Your task to perform on an android device: delete a single message in the gmail app Image 0: 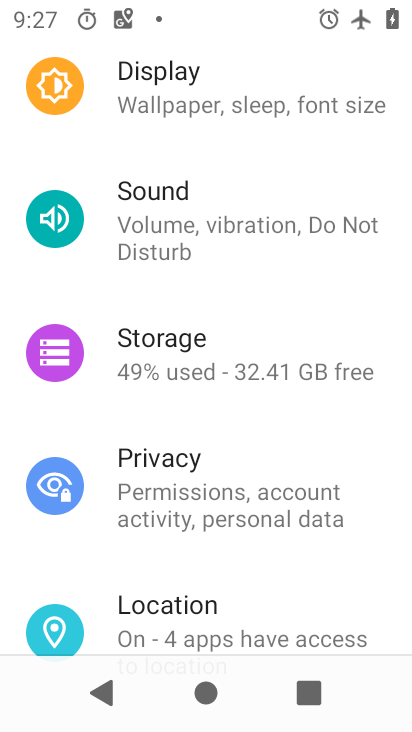
Step 0: press home button
Your task to perform on an android device: delete a single message in the gmail app Image 1: 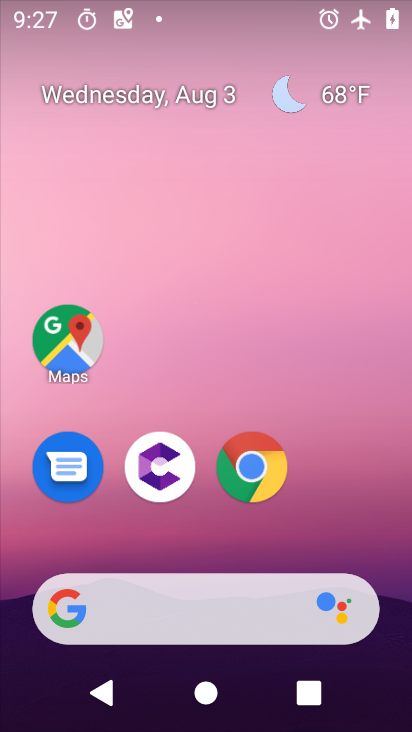
Step 1: drag from (400, 505) to (204, 43)
Your task to perform on an android device: delete a single message in the gmail app Image 2: 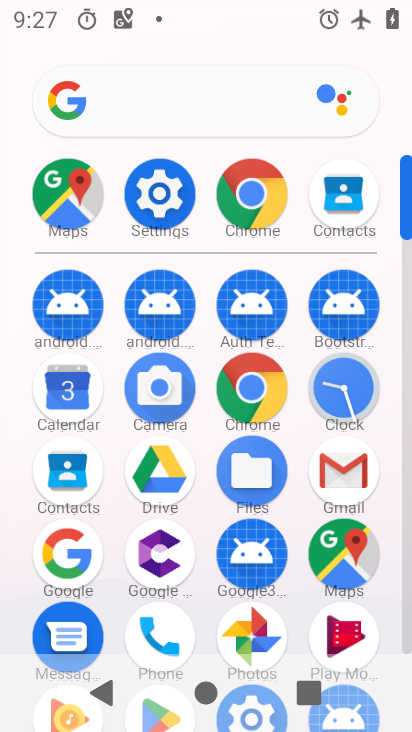
Step 2: click (329, 460)
Your task to perform on an android device: delete a single message in the gmail app Image 3: 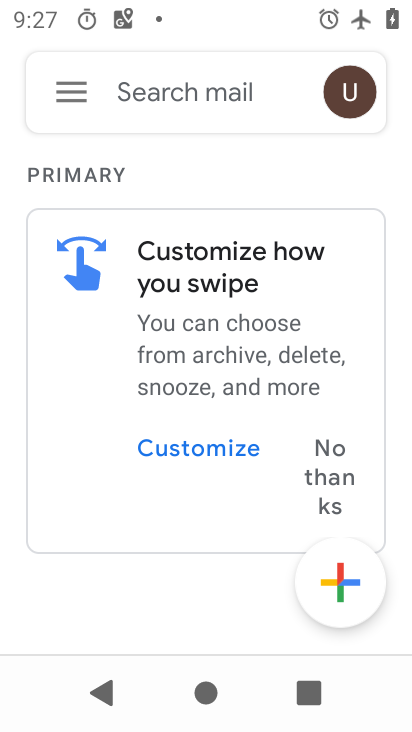
Step 3: click (76, 94)
Your task to perform on an android device: delete a single message in the gmail app Image 4: 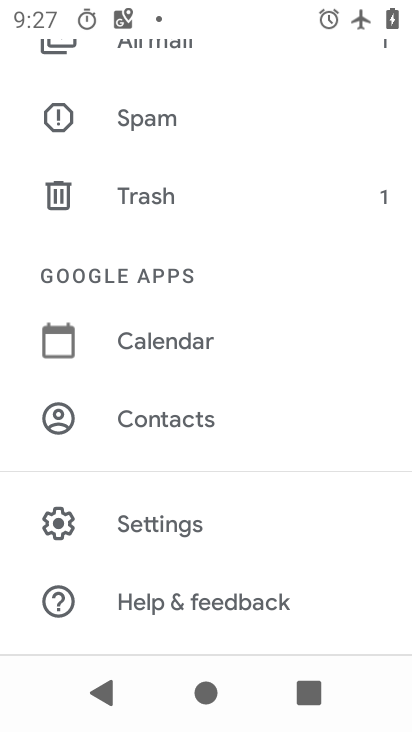
Step 4: click (176, 56)
Your task to perform on an android device: delete a single message in the gmail app Image 5: 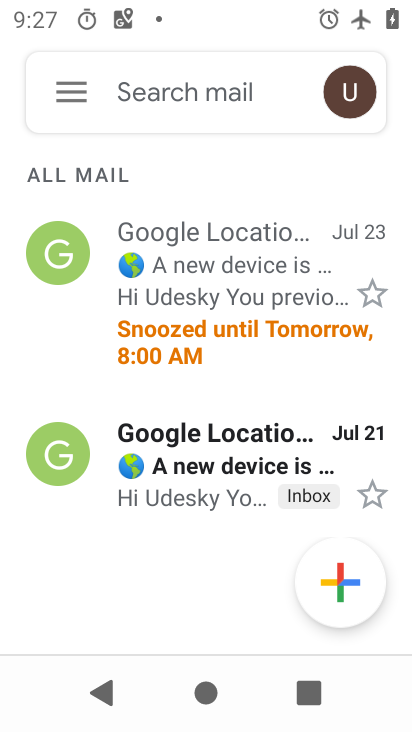
Step 5: click (273, 261)
Your task to perform on an android device: delete a single message in the gmail app Image 6: 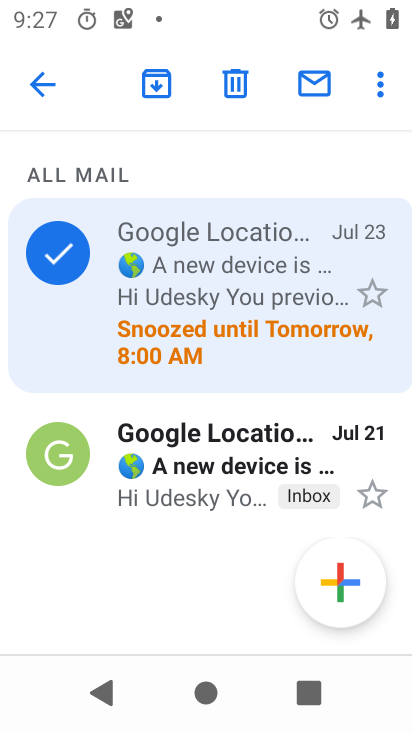
Step 6: click (243, 93)
Your task to perform on an android device: delete a single message in the gmail app Image 7: 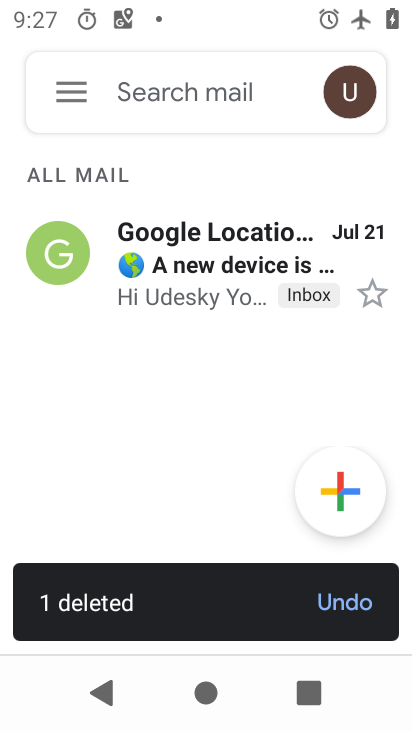
Step 7: task complete